Your task to perform on an android device: move a message to another label in the gmail app Image 0: 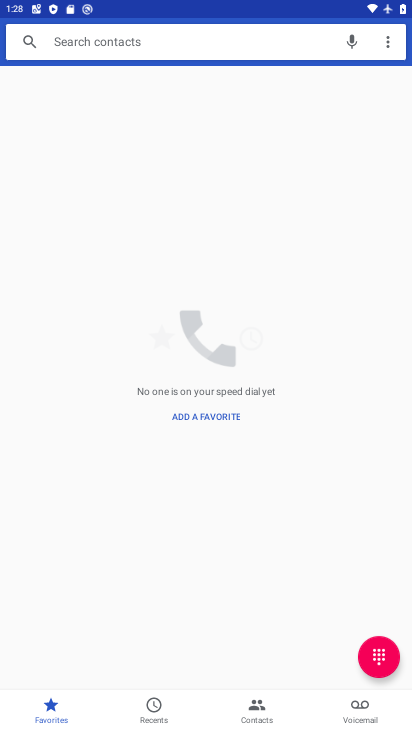
Step 0: press home button
Your task to perform on an android device: move a message to another label in the gmail app Image 1: 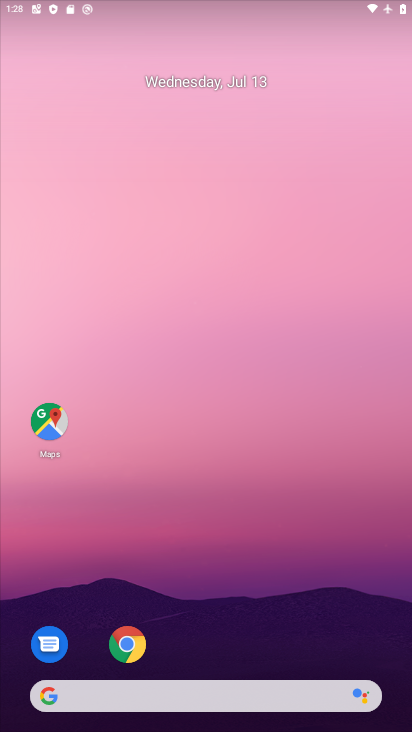
Step 1: drag from (298, 452) to (249, 29)
Your task to perform on an android device: move a message to another label in the gmail app Image 2: 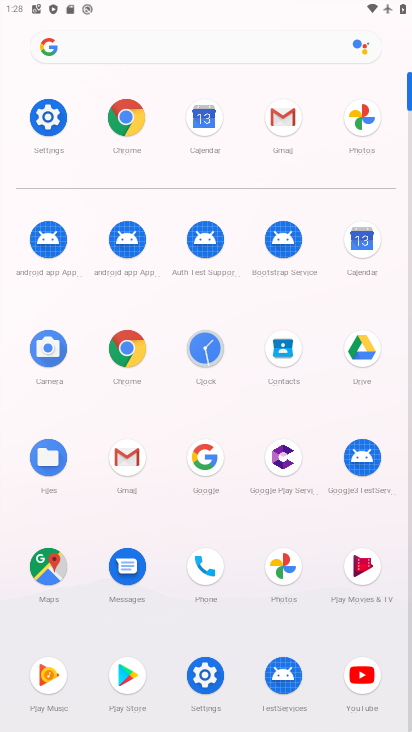
Step 2: click (285, 108)
Your task to perform on an android device: move a message to another label in the gmail app Image 3: 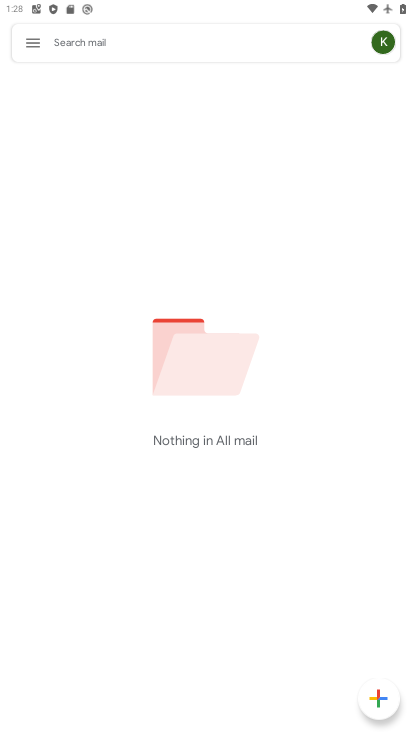
Step 3: click (39, 46)
Your task to perform on an android device: move a message to another label in the gmail app Image 4: 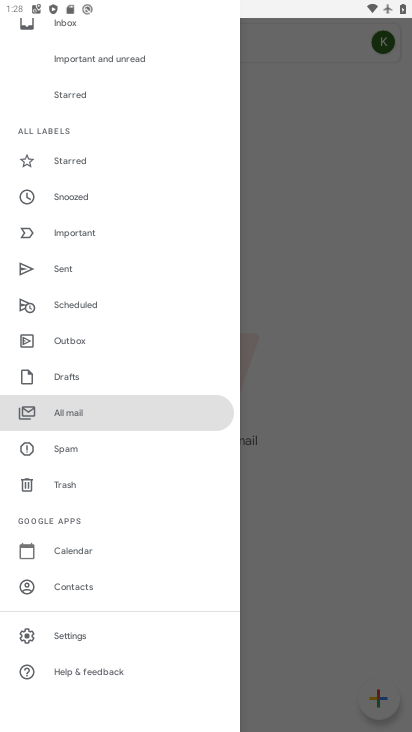
Step 4: click (68, 416)
Your task to perform on an android device: move a message to another label in the gmail app Image 5: 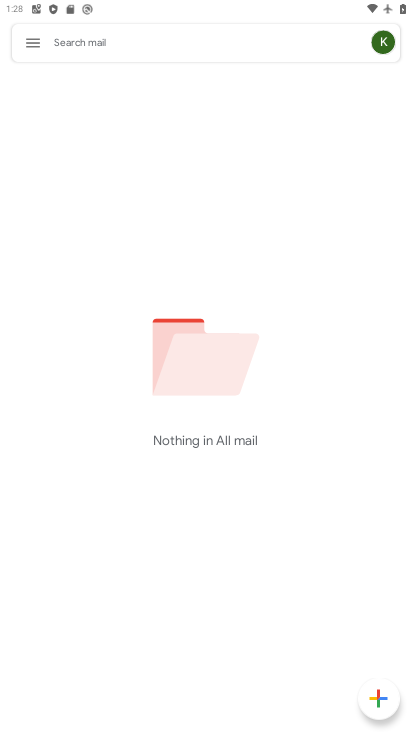
Step 5: task complete